Your task to perform on an android device: open app "Calculator" Image 0: 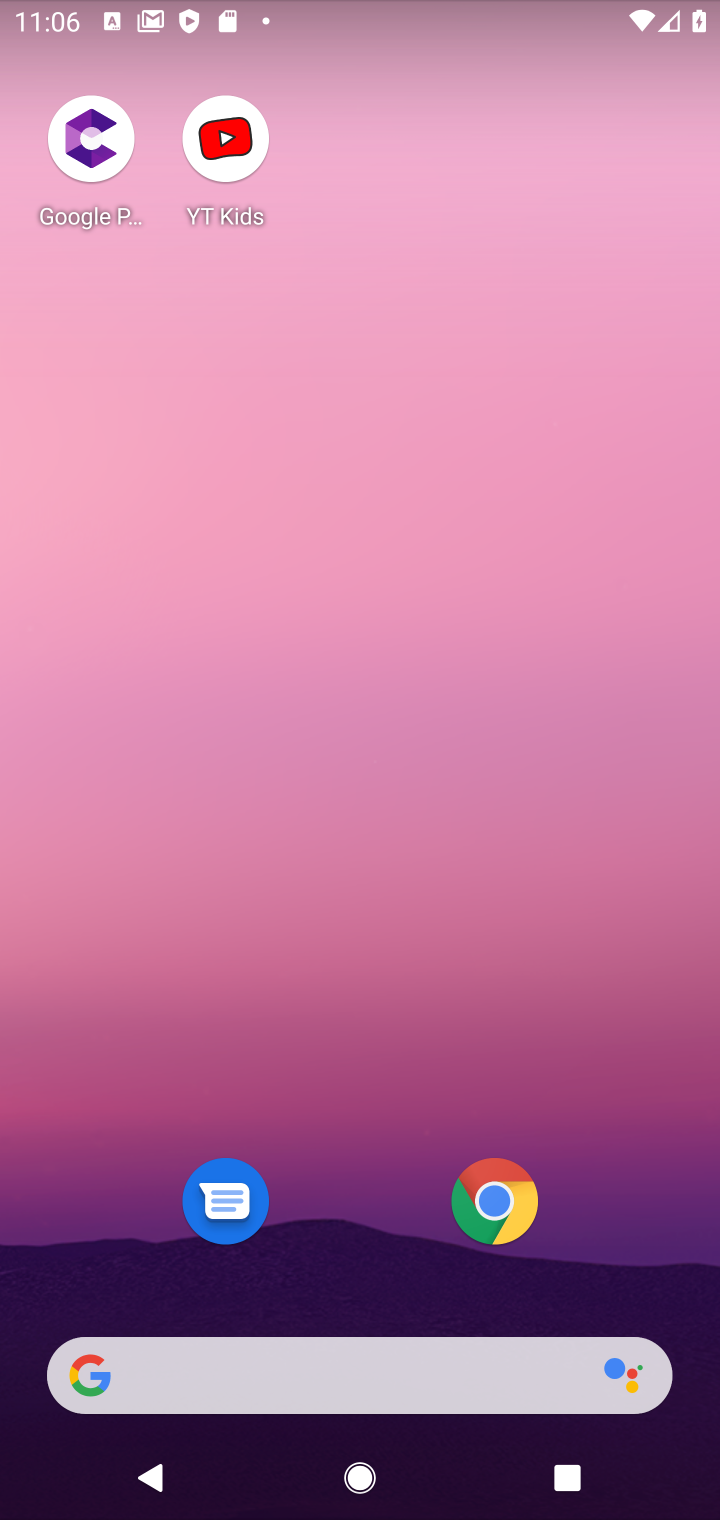
Step 0: drag from (299, 740) to (22, 12)
Your task to perform on an android device: open app "Calculator" Image 1: 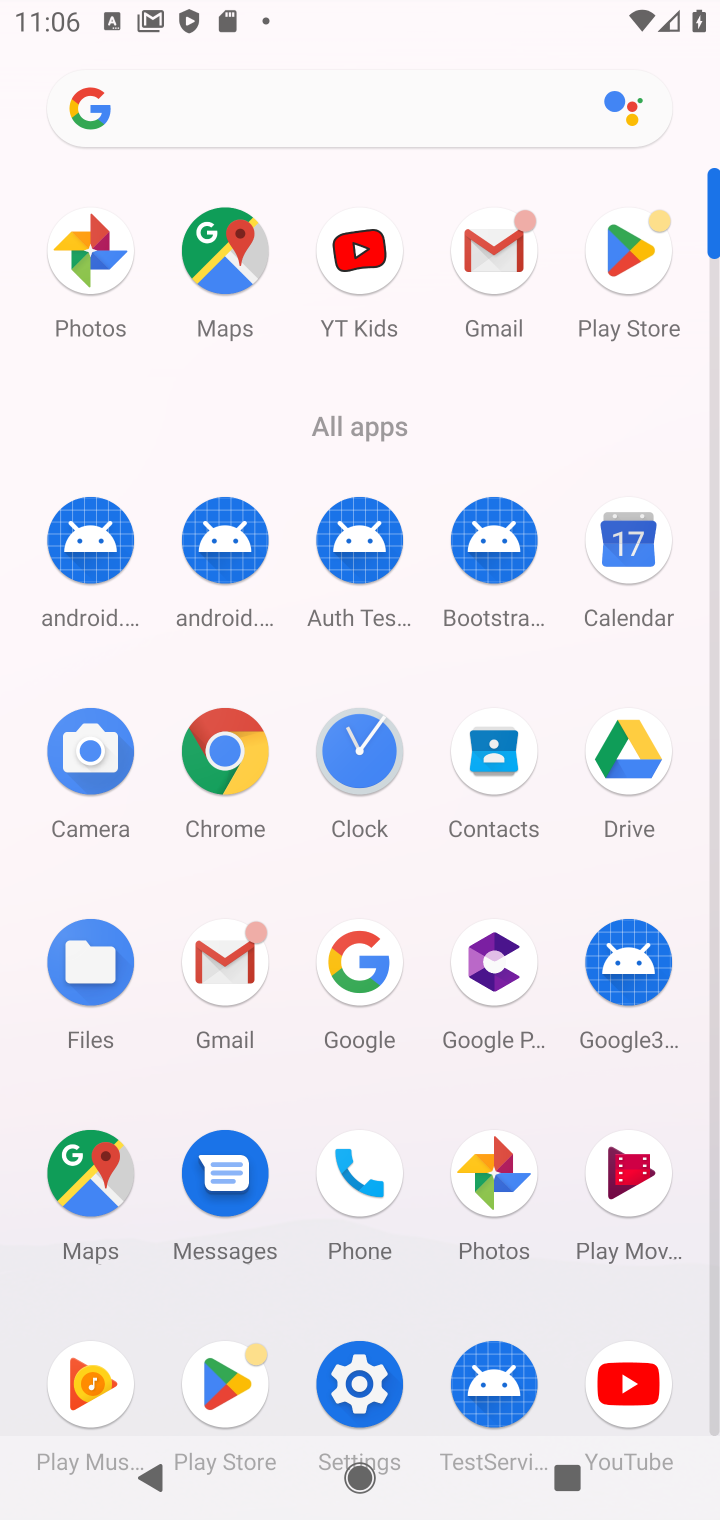
Step 1: click (206, 1364)
Your task to perform on an android device: open app "Calculator" Image 2: 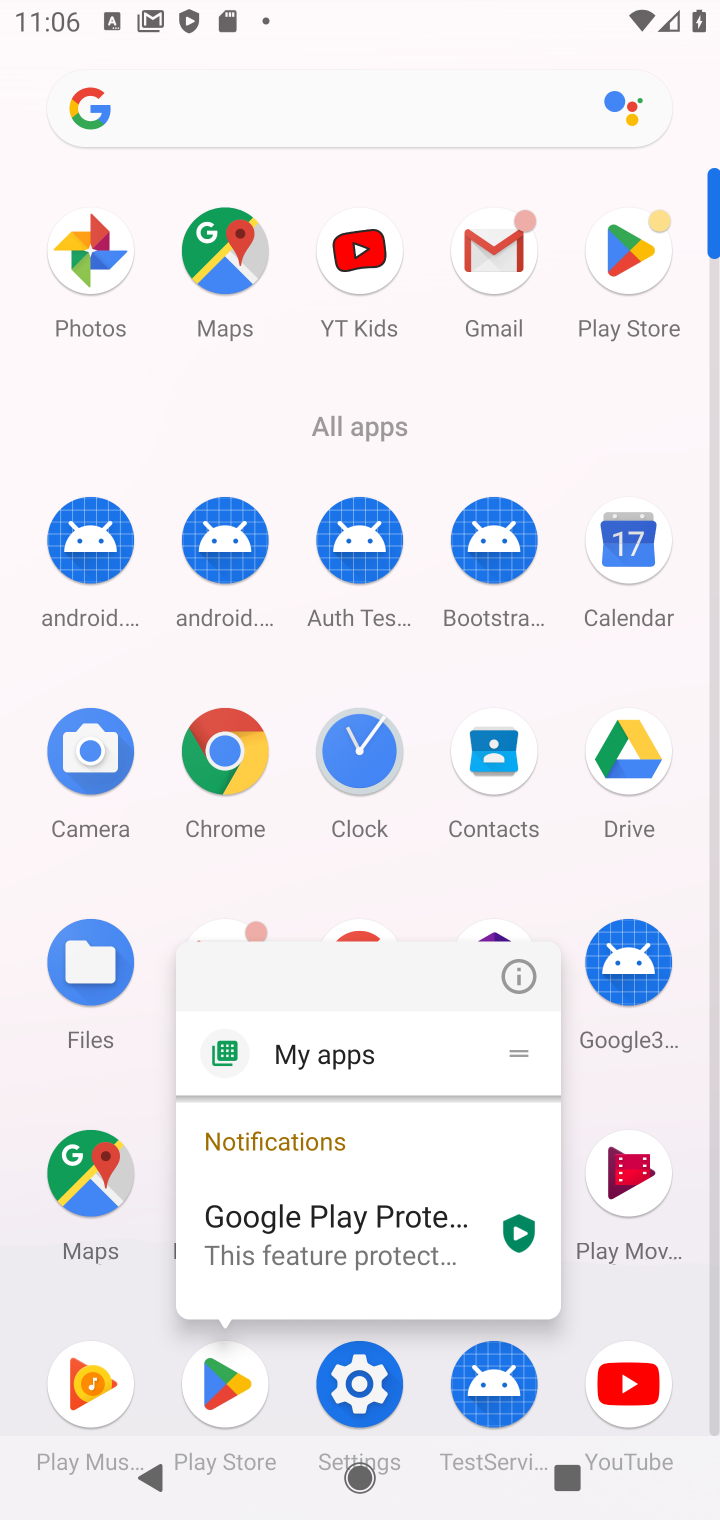
Step 2: click (203, 1407)
Your task to perform on an android device: open app "Calculator" Image 3: 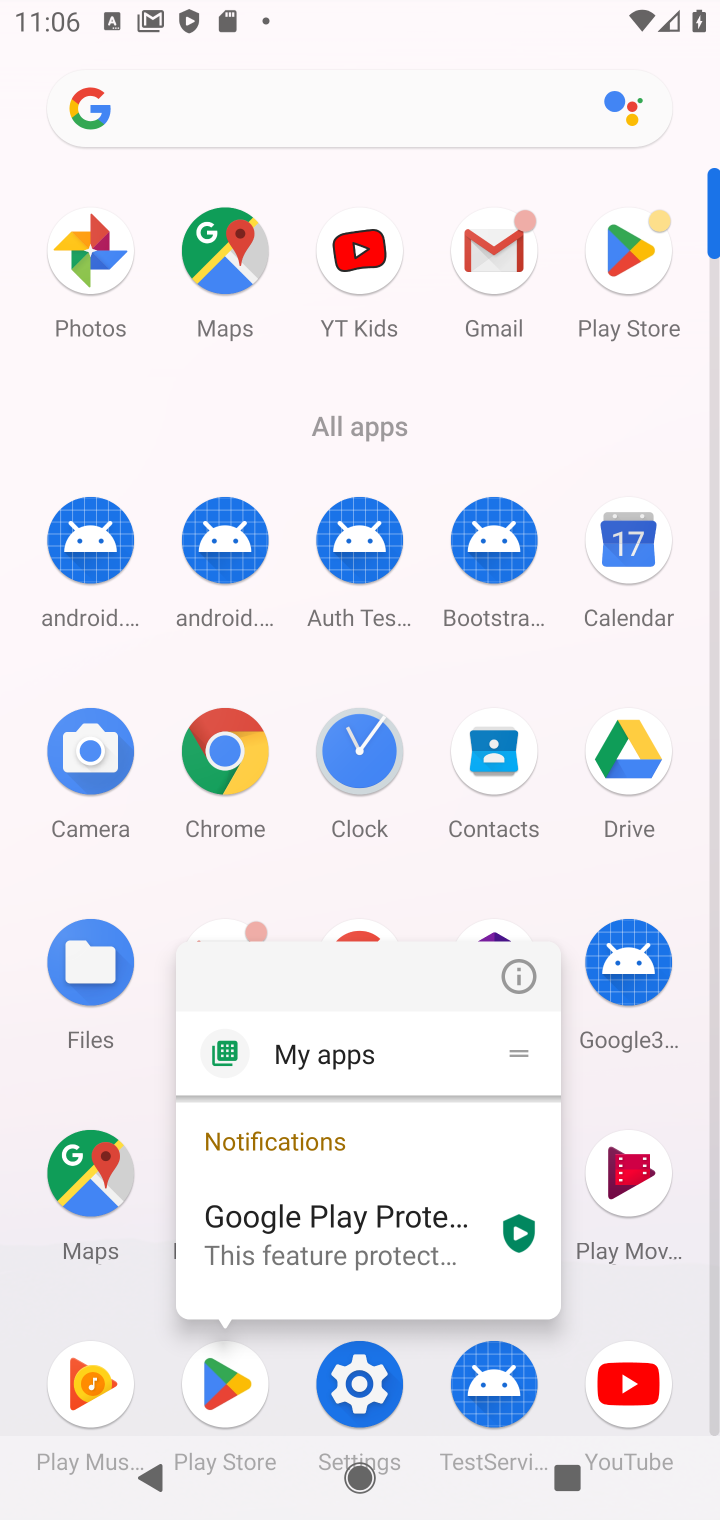
Step 3: click (199, 1407)
Your task to perform on an android device: open app "Calculator" Image 4: 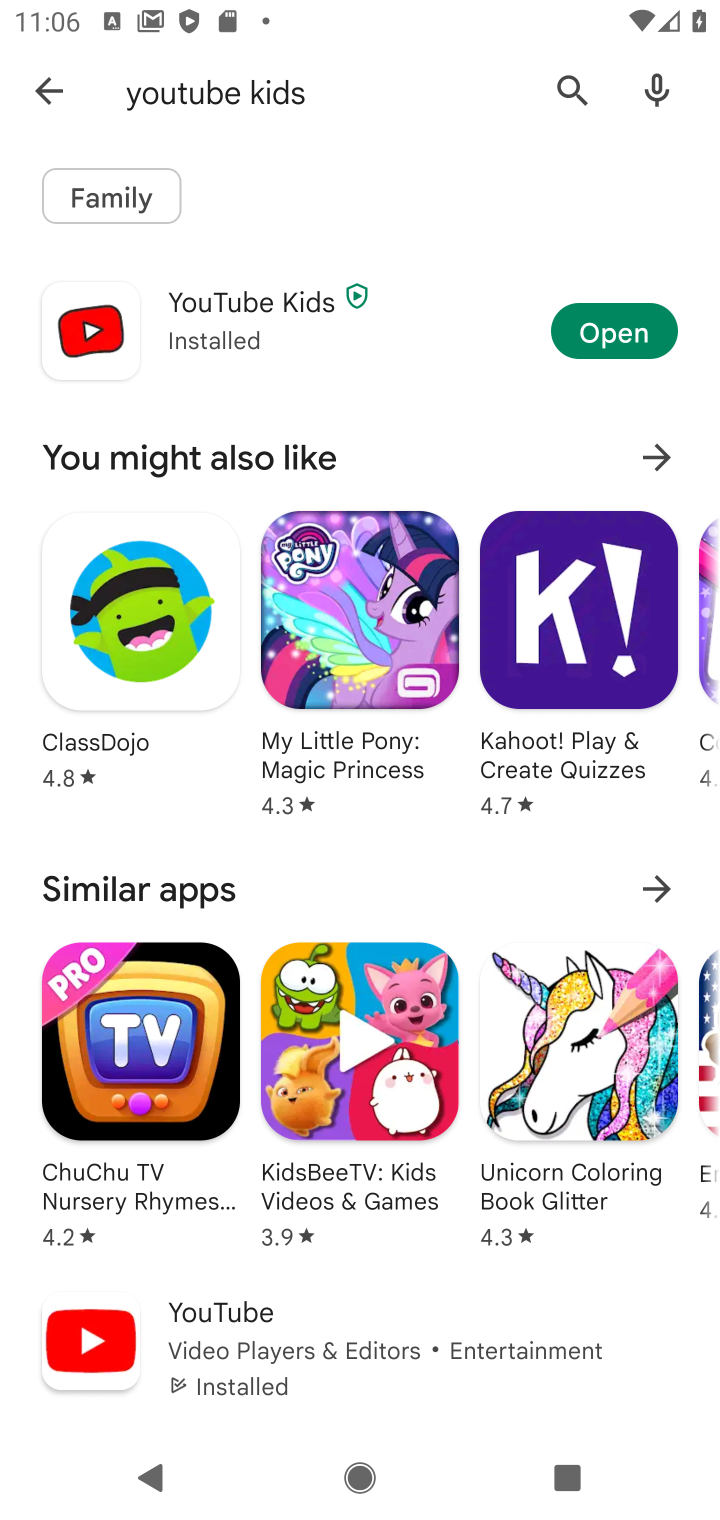
Step 4: click (256, 77)
Your task to perform on an android device: open app "Calculator" Image 5: 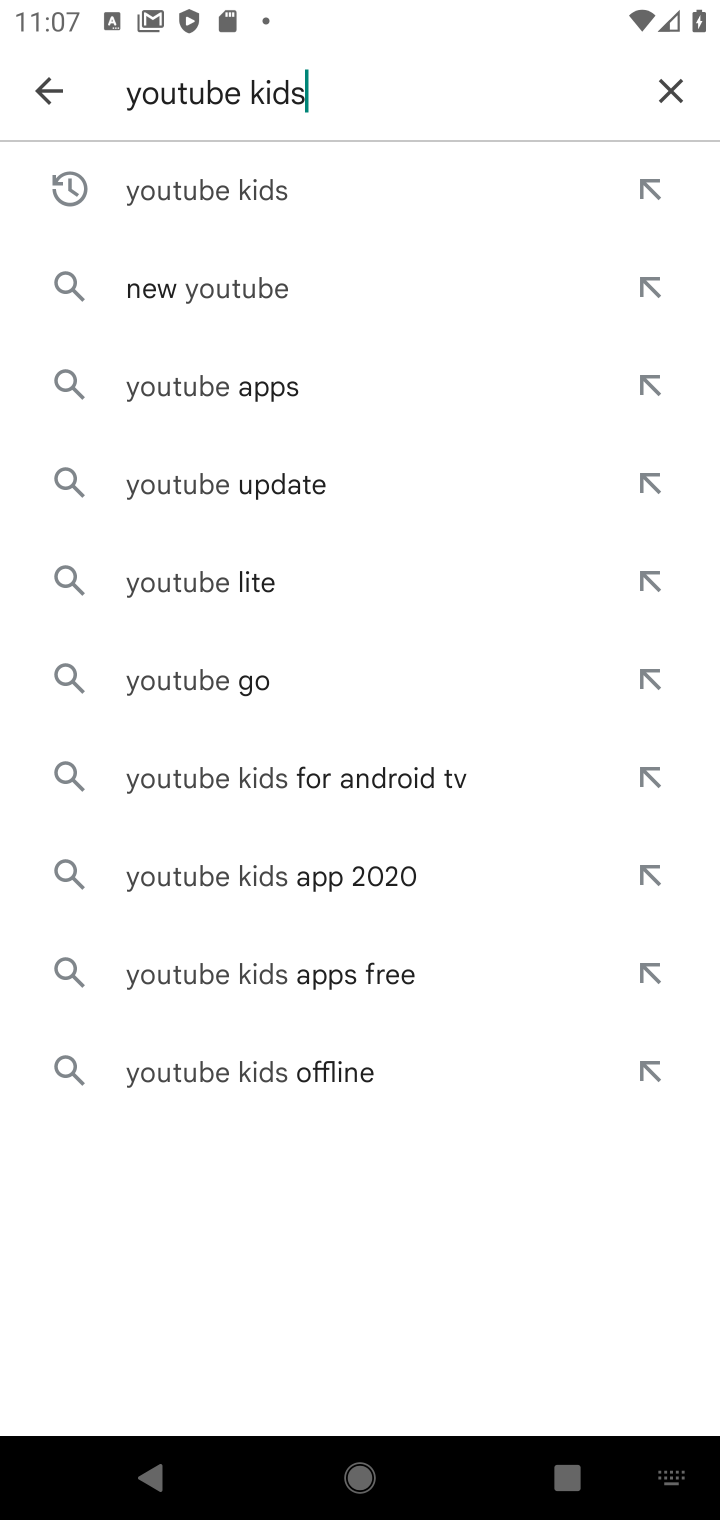
Step 5: click (680, 94)
Your task to perform on an android device: open app "Calculator" Image 6: 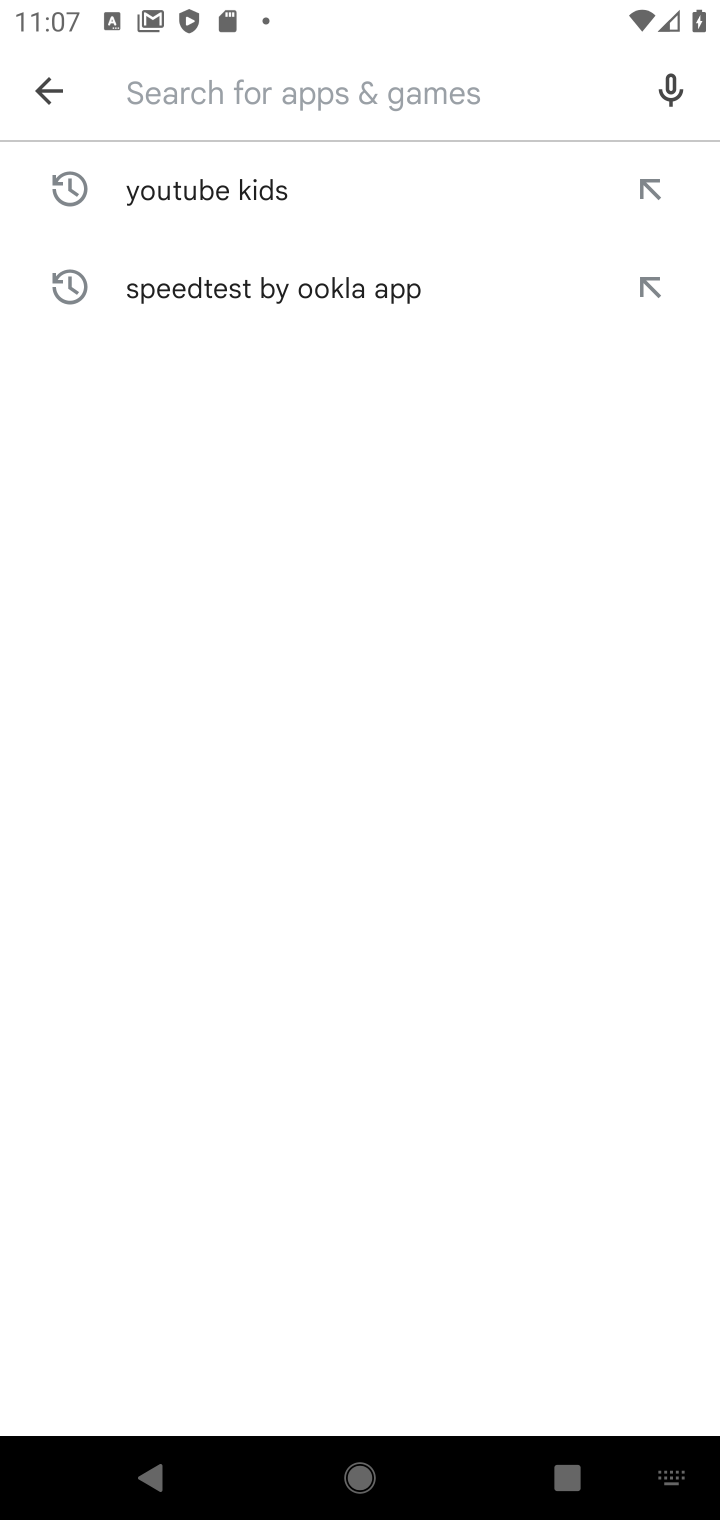
Step 6: type "calculator"
Your task to perform on an android device: open app "Calculator" Image 7: 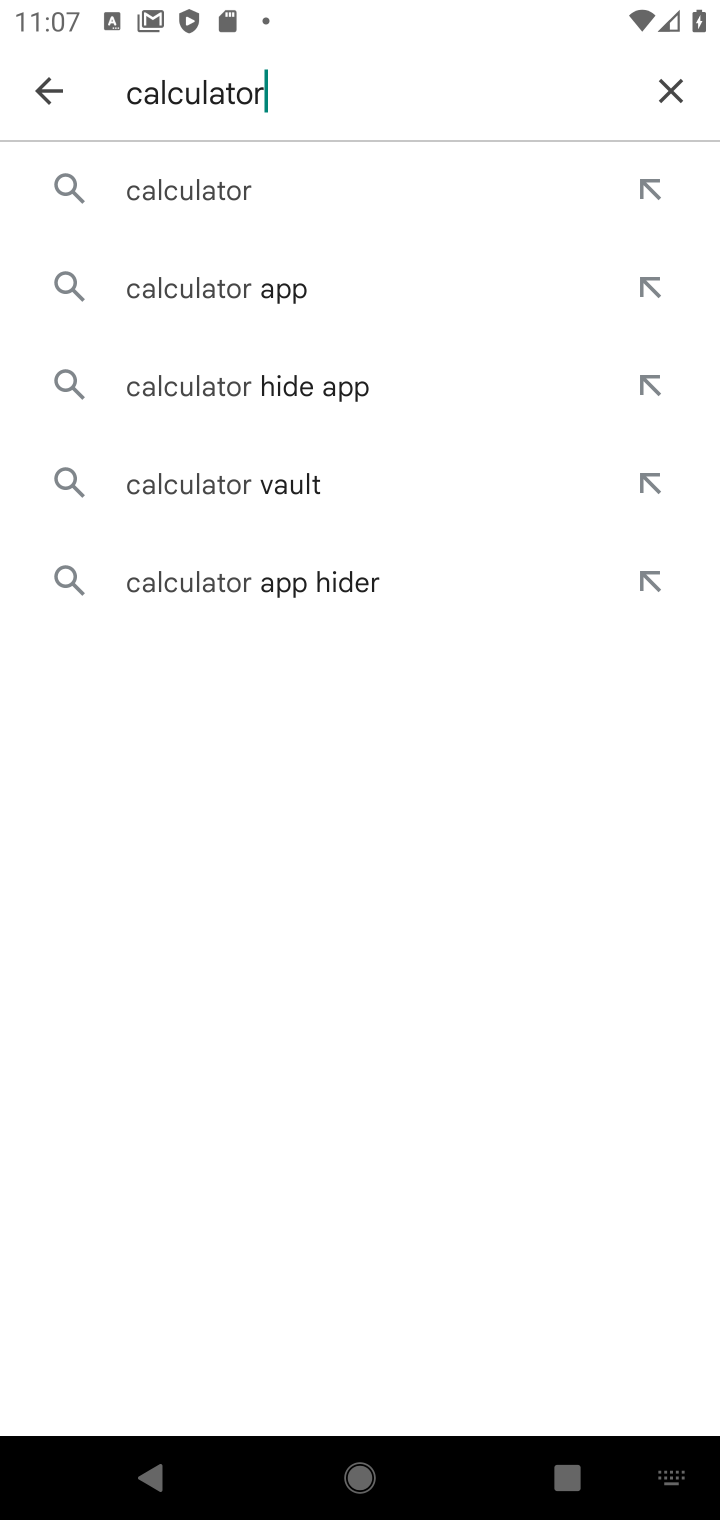
Step 7: click (182, 201)
Your task to perform on an android device: open app "Calculator" Image 8: 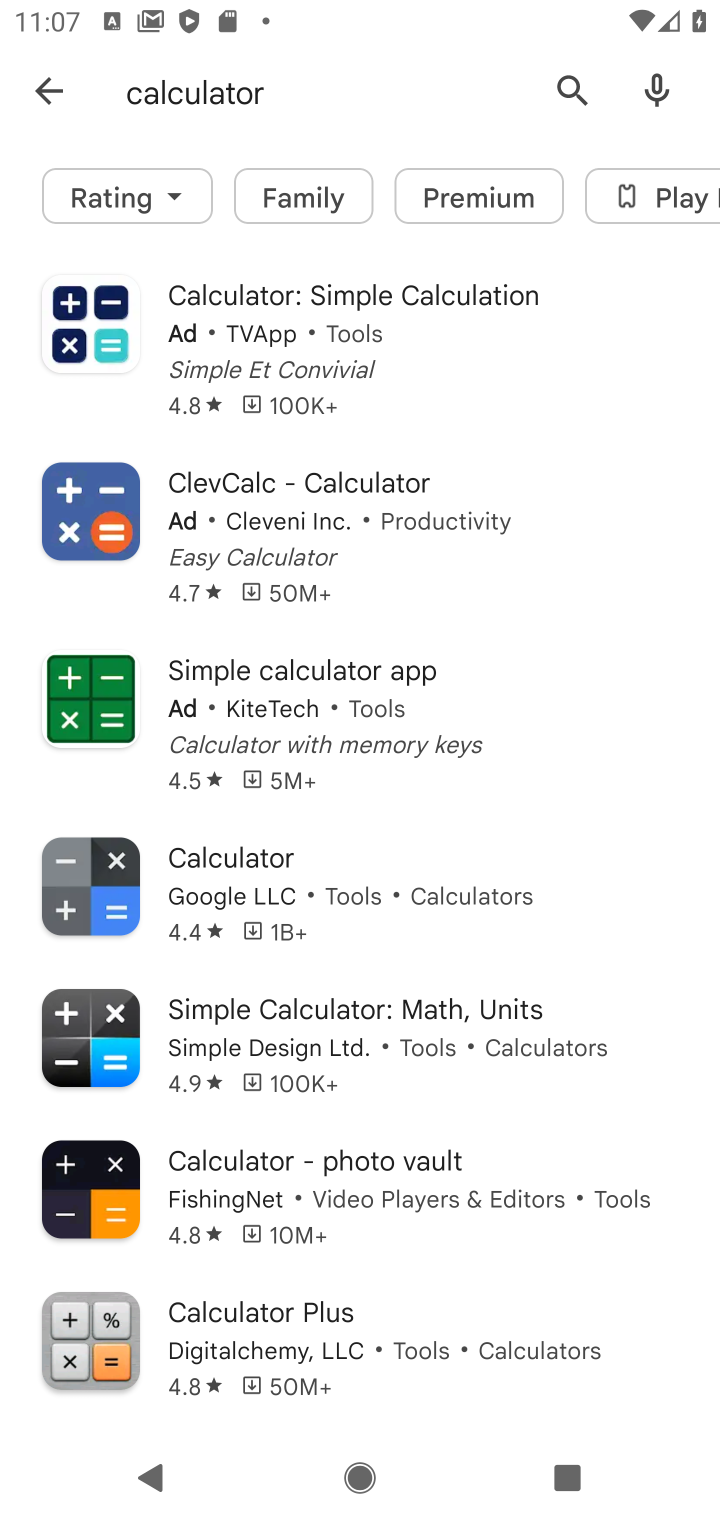
Step 8: click (338, 332)
Your task to perform on an android device: open app "Calculator" Image 9: 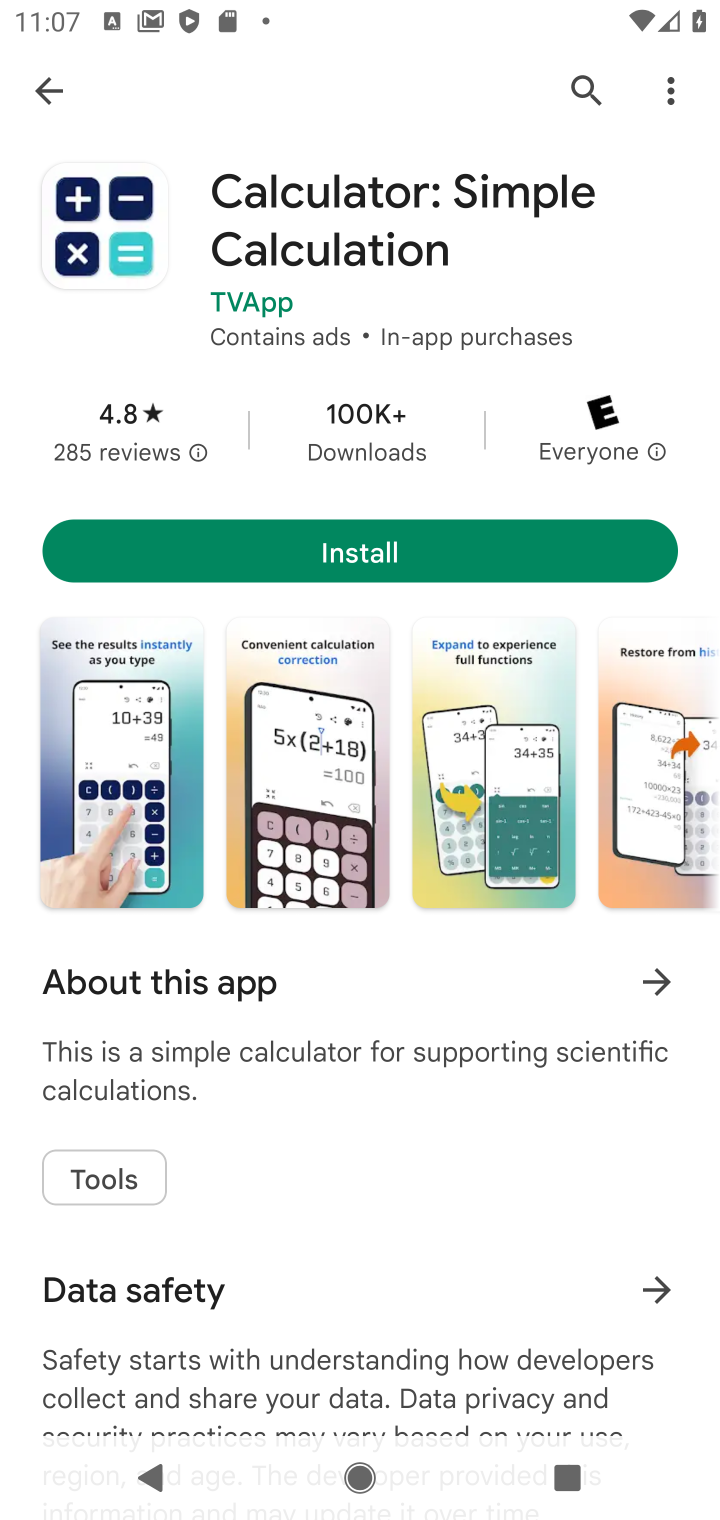
Step 9: task complete